Your task to perform on an android device: toggle wifi Image 0: 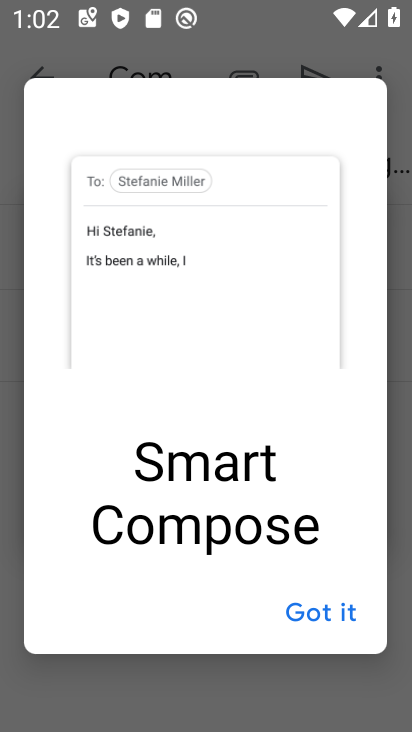
Step 0: press home button
Your task to perform on an android device: toggle wifi Image 1: 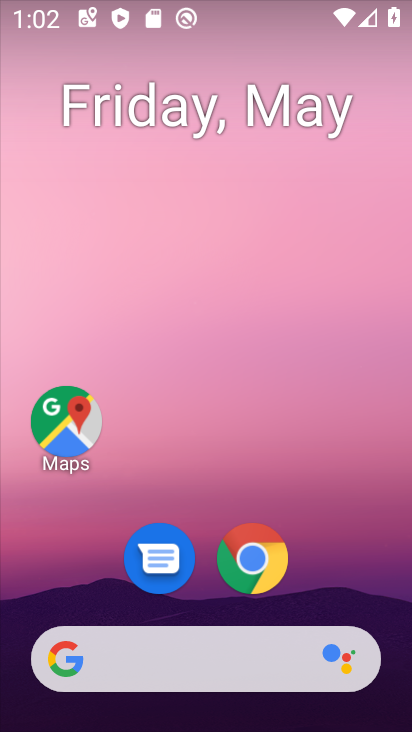
Step 1: drag from (341, 575) to (306, 75)
Your task to perform on an android device: toggle wifi Image 2: 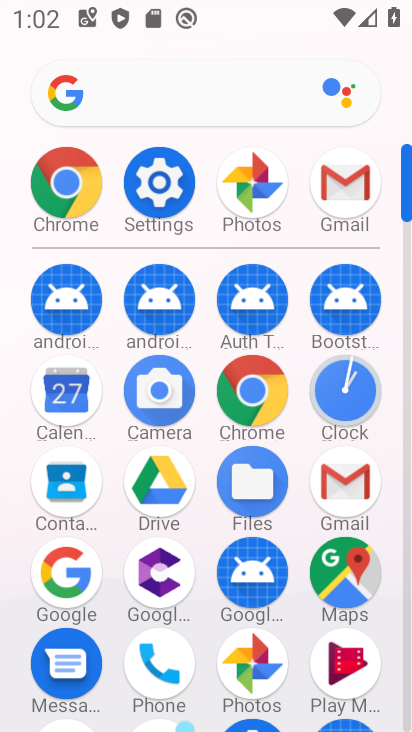
Step 2: click (162, 182)
Your task to perform on an android device: toggle wifi Image 3: 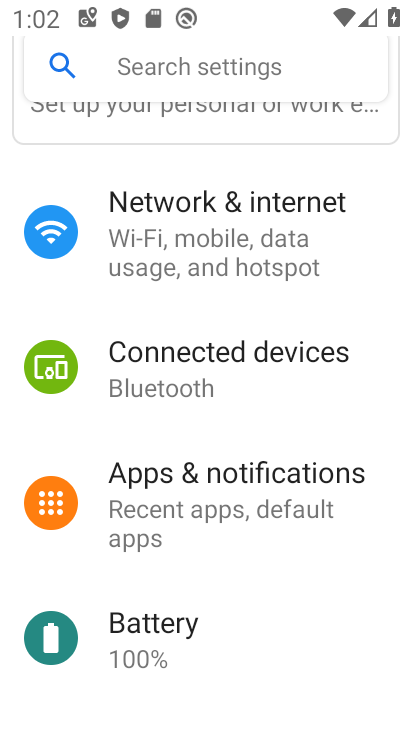
Step 3: click (165, 206)
Your task to perform on an android device: toggle wifi Image 4: 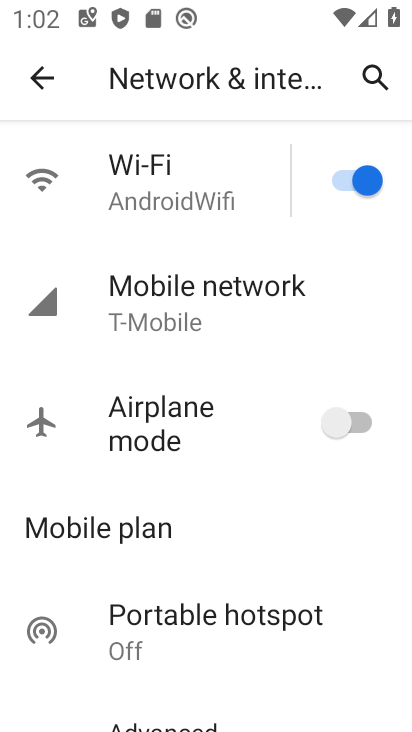
Step 4: click (340, 190)
Your task to perform on an android device: toggle wifi Image 5: 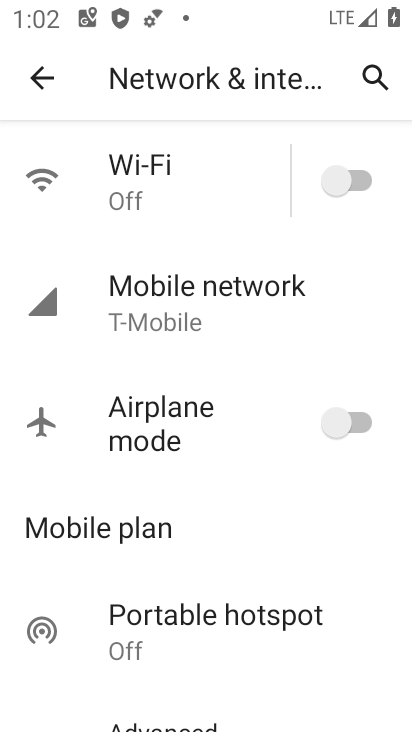
Step 5: task complete